Your task to perform on an android device: add a label to a message in the gmail app Image 0: 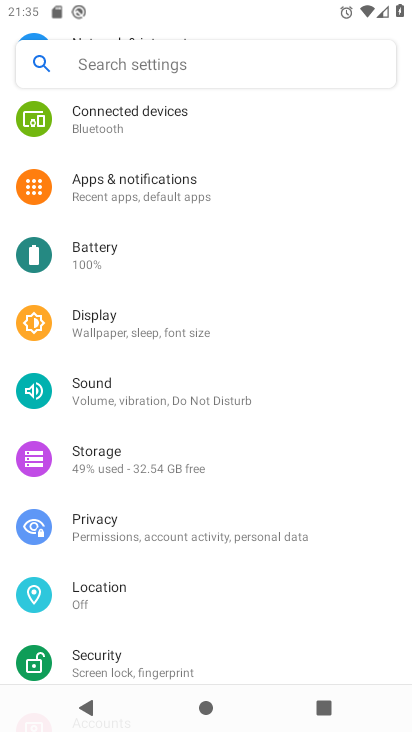
Step 0: press home button
Your task to perform on an android device: add a label to a message in the gmail app Image 1: 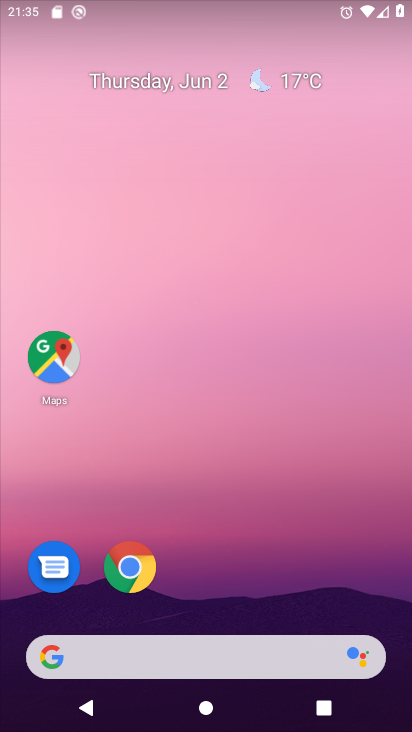
Step 1: drag from (214, 594) to (241, 115)
Your task to perform on an android device: add a label to a message in the gmail app Image 2: 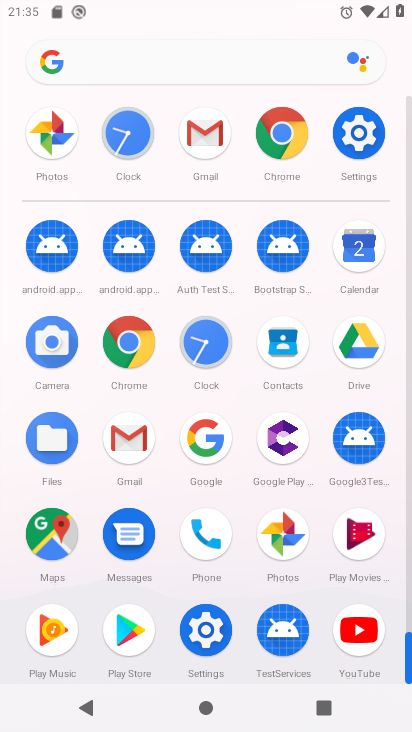
Step 2: click (141, 455)
Your task to perform on an android device: add a label to a message in the gmail app Image 3: 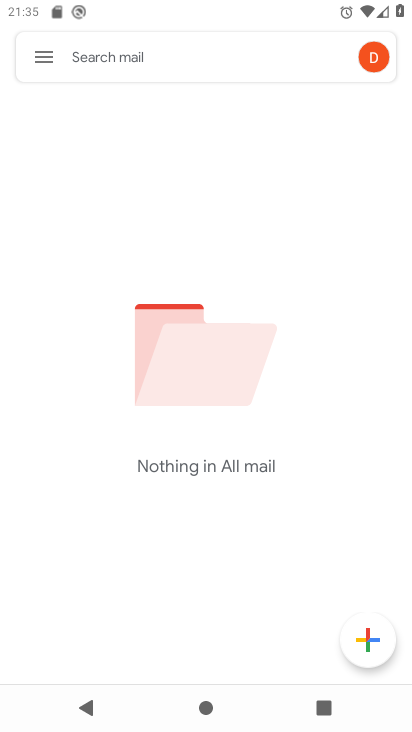
Step 3: task complete